Your task to perform on an android device: What's the weather going to be this weekend? Image 0: 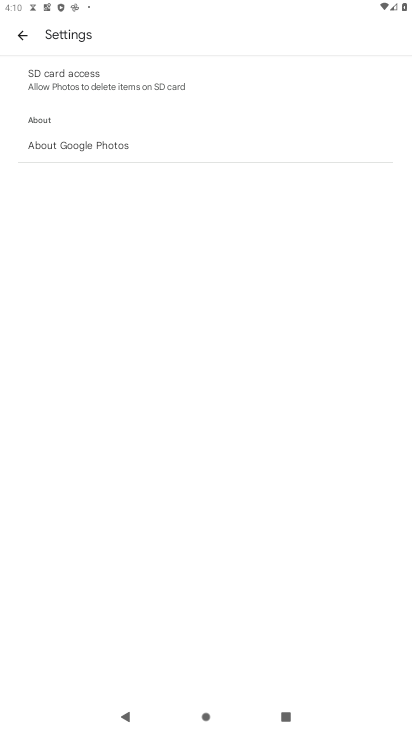
Step 0: press home button
Your task to perform on an android device: What's the weather going to be this weekend? Image 1: 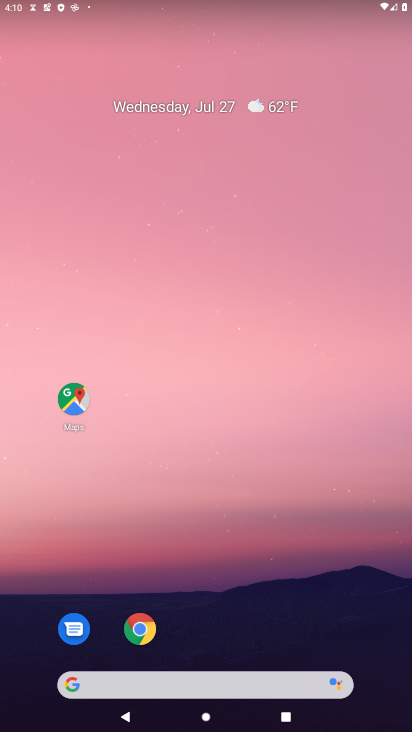
Step 1: drag from (211, 688) to (257, 8)
Your task to perform on an android device: What's the weather going to be this weekend? Image 2: 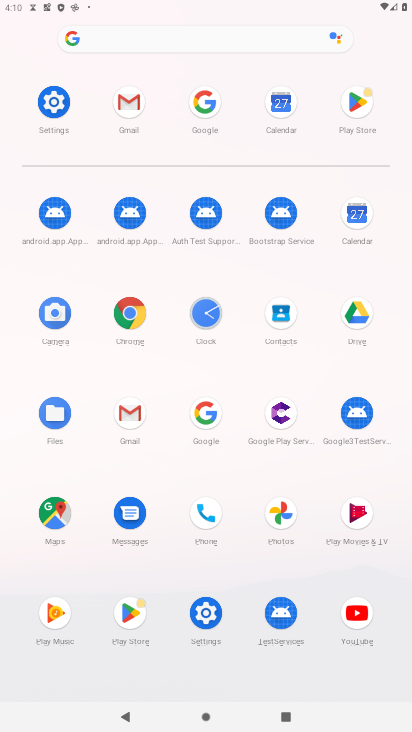
Step 2: click (200, 413)
Your task to perform on an android device: What's the weather going to be this weekend? Image 3: 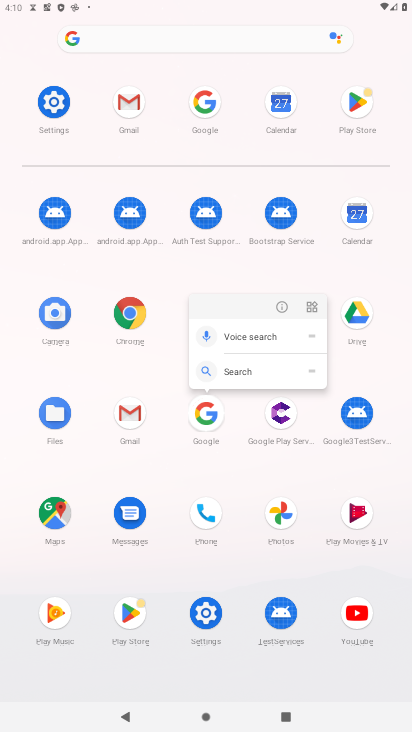
Step 3: click (204, 410)
Your task to perform on an android device: What's the weather going to be this weekend? Image 4: 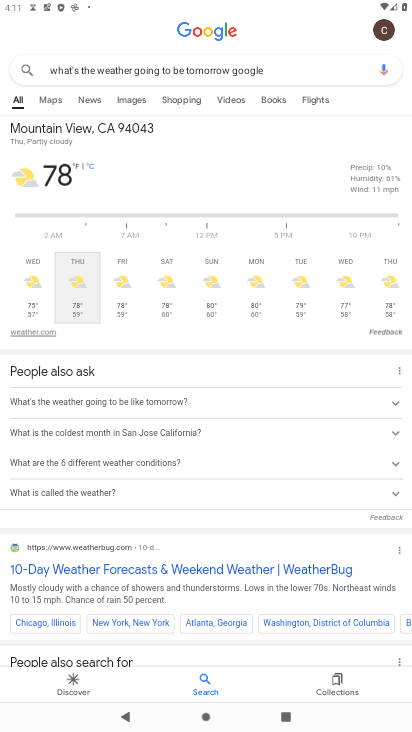
Step 4: click (300, 73)
Your task to perform on an android device: What's the weather going to be this weekend? Image 5: 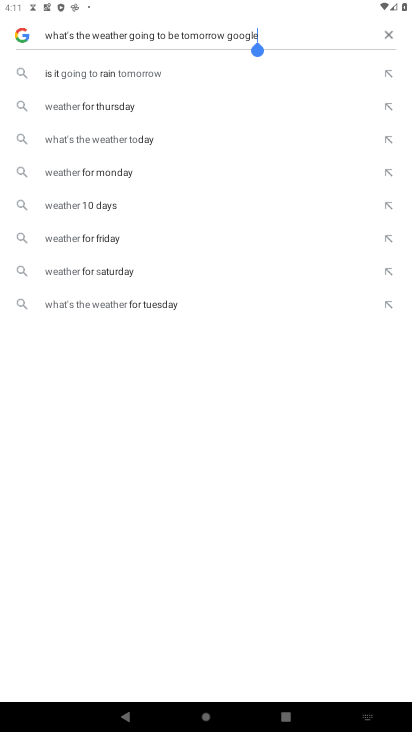
Step 5: click (390, 35)
Your task to perform on an android device: What's the weather going to be this weekend? Image 6: 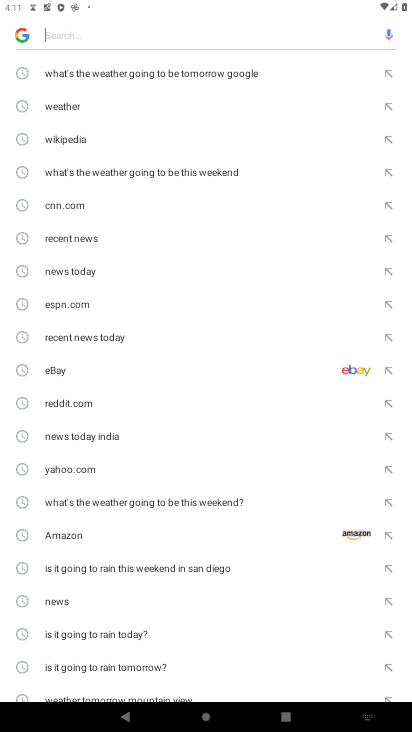
Step 6: type "What's the weather going to be this weekend?"
Your task to perform on an android device: What's the weather going to be this weekend? Image 7: 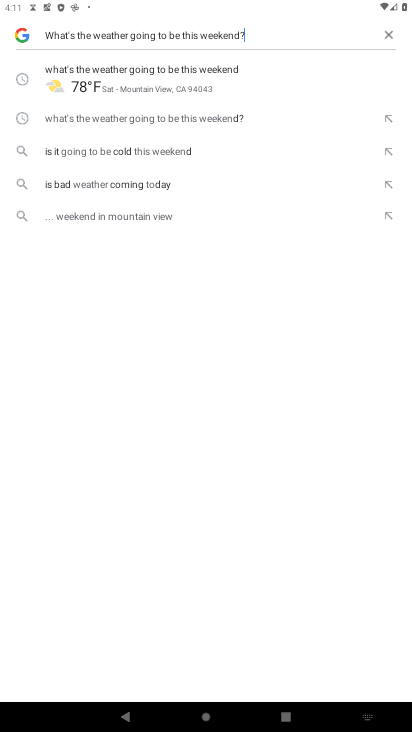
Step 7: type ""
Your task to perform on an android device: What's the weather going to be this weekend? Image 8: 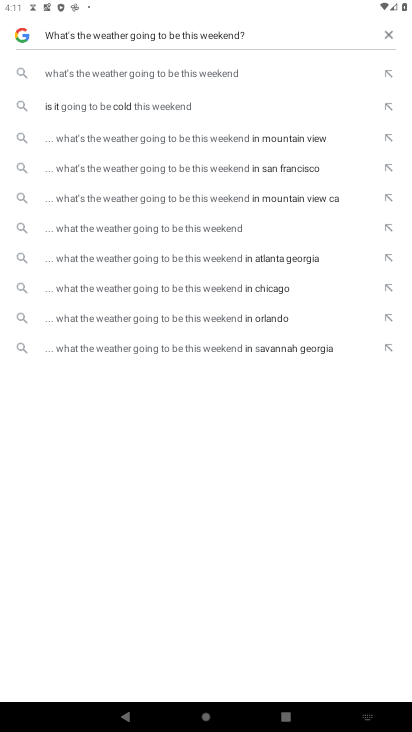
Step 8: click (140, 75)
Your task to perform on an android device: What's the weather going to be this weekend? Image 9: 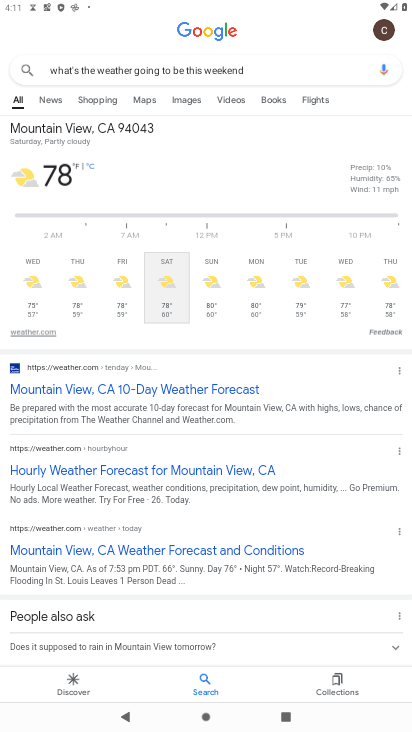
Step 9: task complete